Your task to perform on an android device: Go to CNN.com Image 0: 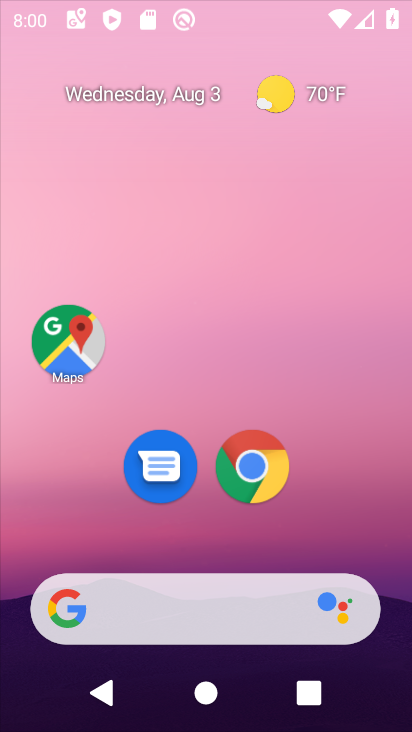
Step 0: drag from (364, 516) to (316, 131)
Your task to perform on an android device: Go to CNN.com Image 1: 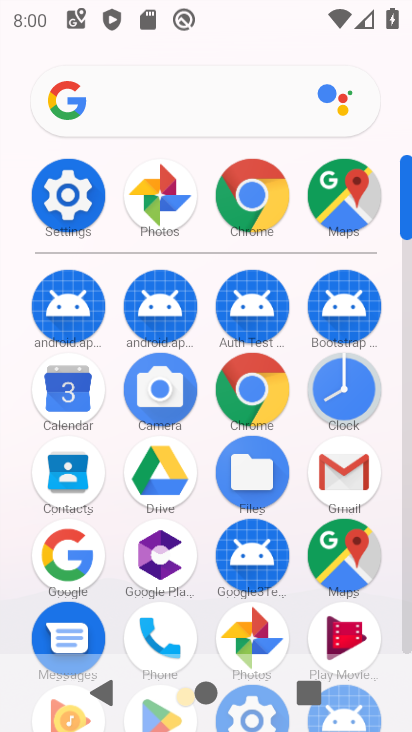
Step 1: click (251, 382)
Your task to perform on an android device: Go to CNN.com Image 2: 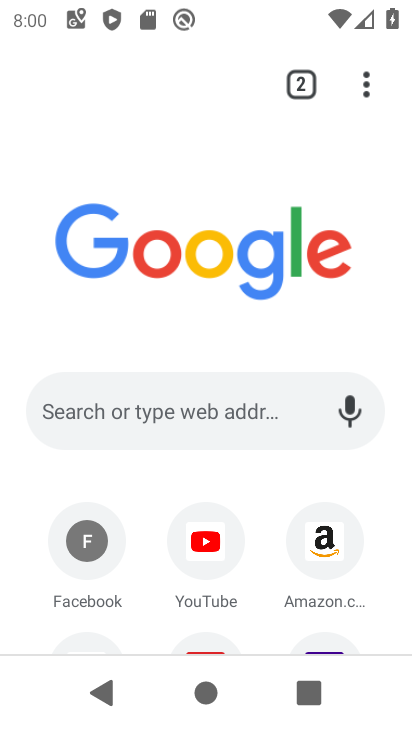
Step 2: drag from (266, 505) to (280, 173)
Your task to perform on an android device: Go to CNN.com Image 3: 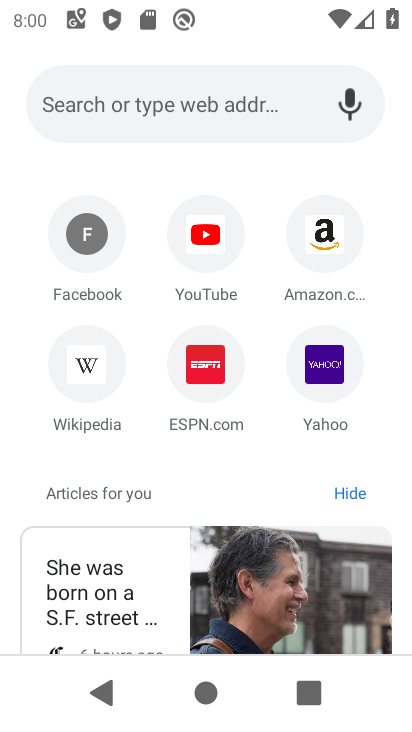
Step 3: click (197, 99)
Your task to perform on an android device: Go to CNN.com Image 4: 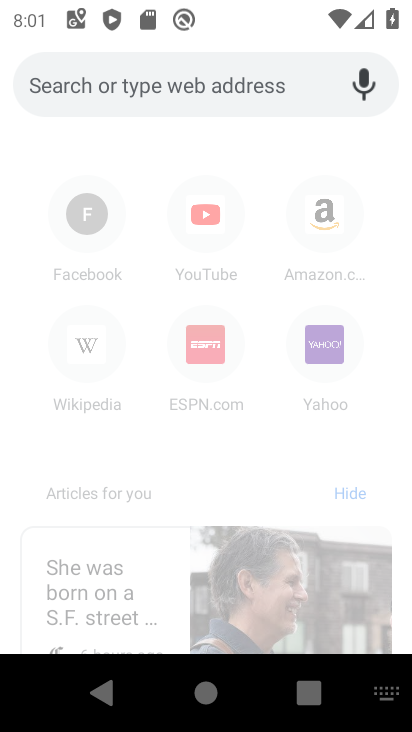
Step 4: type "cnn.com"
Your task to perform on an android device: Go to CNN.com Image 5: 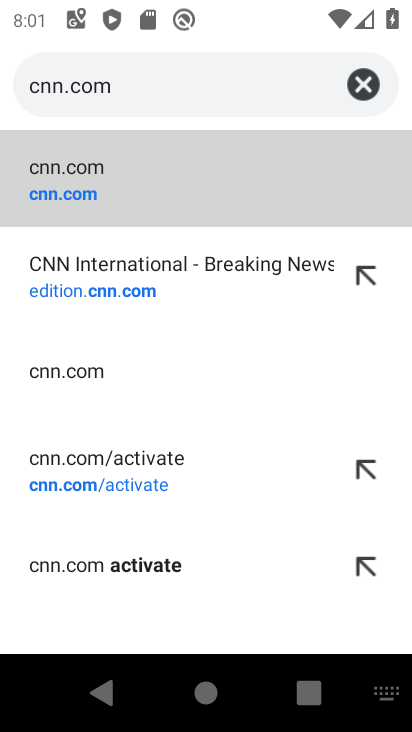
Step 5: click (117, 188)
Your task to perform on an android device: Go to CNN.com Image 6: 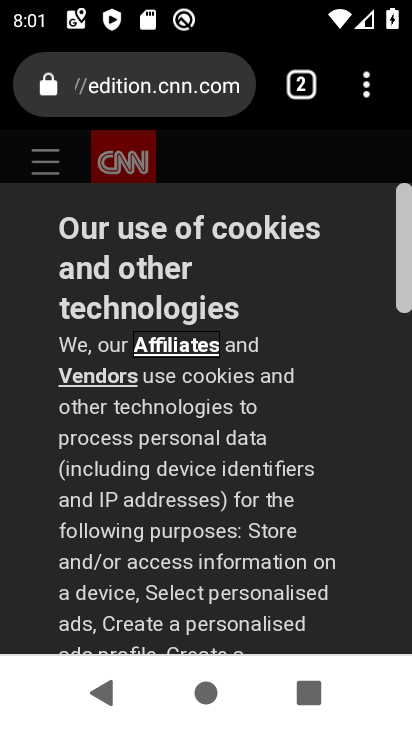
Step 6: task complete